Your task to perform on an android device: Go to internet settings Image 0: 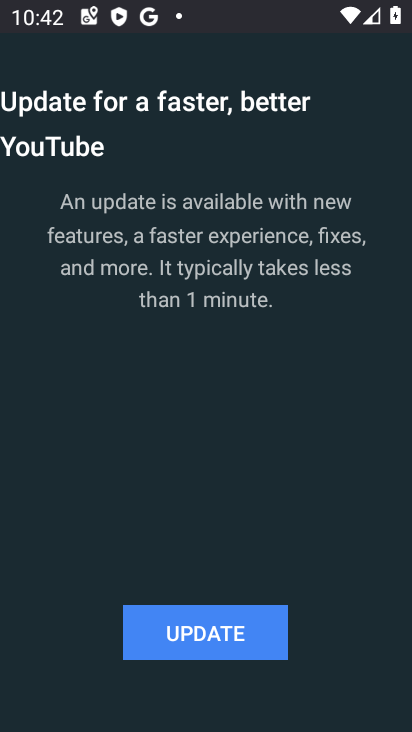
Step 0: press home button
Your task to perform on an android device: Go to internet settings Image 1: 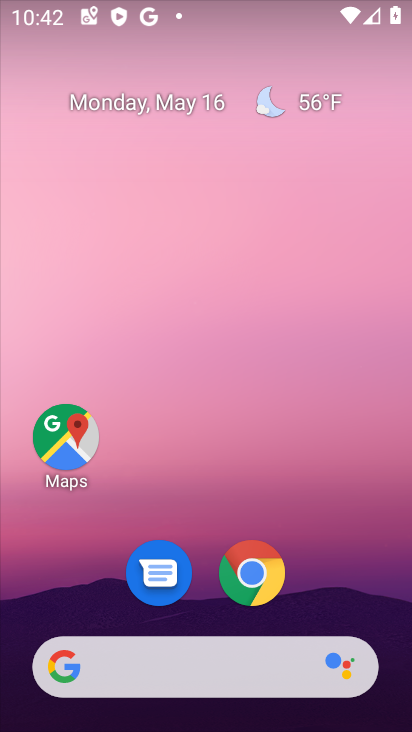
Step 1: drag from (318, 574) to (265, 85)
Your task to perform on an android device: Go to internet settings Image 2: 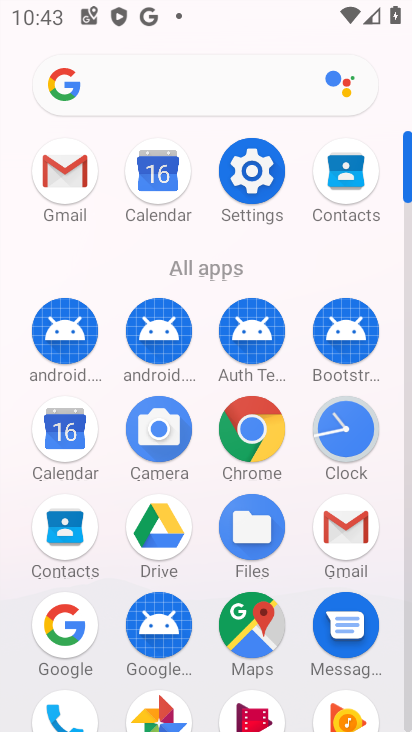
Step 2: click (245, 165)
Your task to perform on an android device: Go to internet settings Image 3: 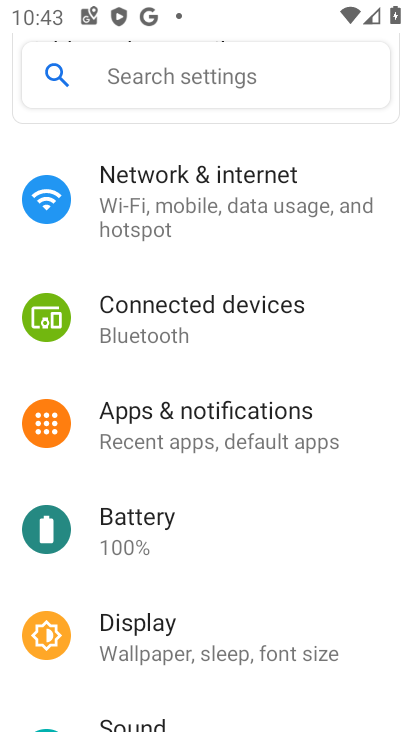
Step 3: click (250, 195)
Your task to perform on an android device: Go to internet settings Image 4: 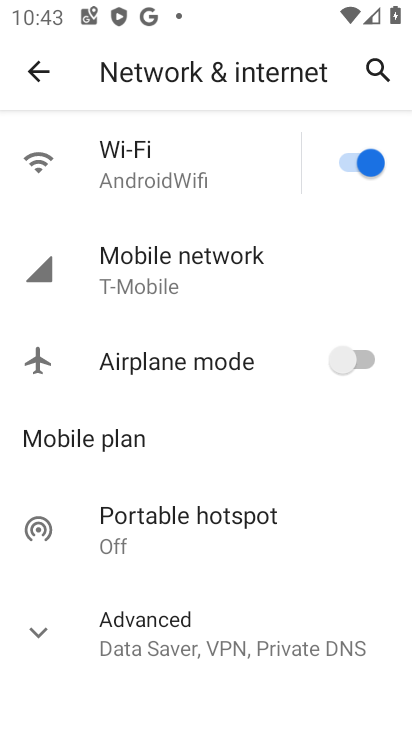
Step 4: task complete